Your task to perform on an android device: Open calendar and show me the second week of next month Image 0: 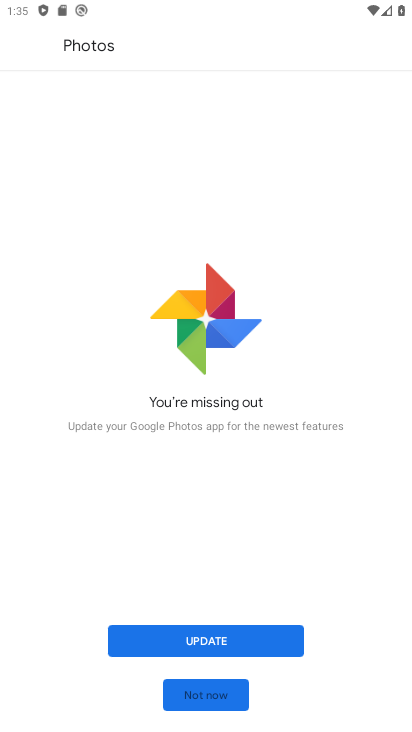
Step 0: press home button
Your task to perform on an android device: Open calendar and show me the second week of next month Image 1: 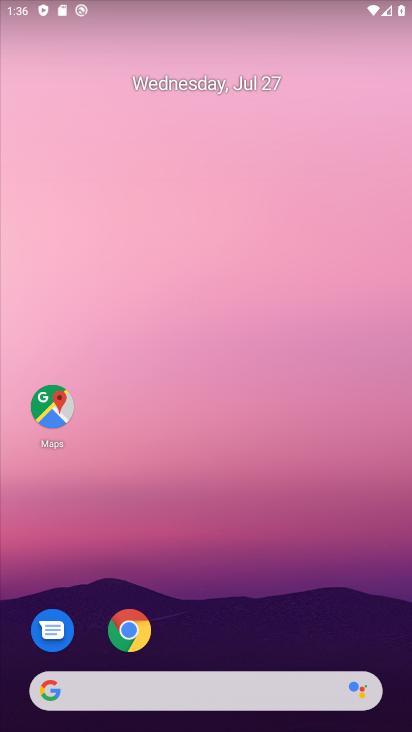
Step 1: drag from (358, 632) to (323, 0)
Your task to perform on an android device: Open calendar and show me the second week of next month Image 2: 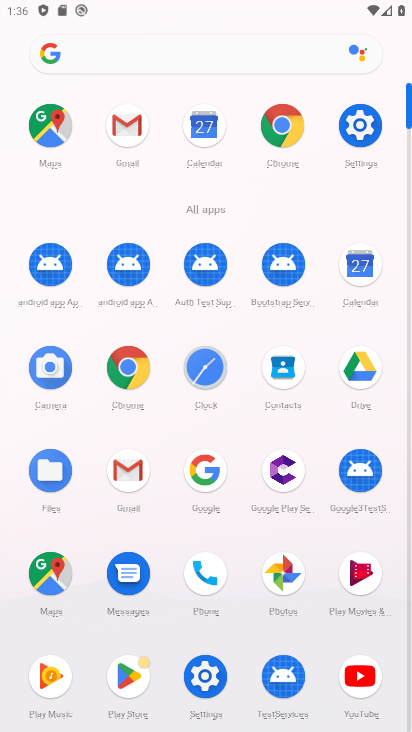
Step 2: click (362, 263)
Your task to perform on an android device: Open calendar and show me the second week of next month Image 3: 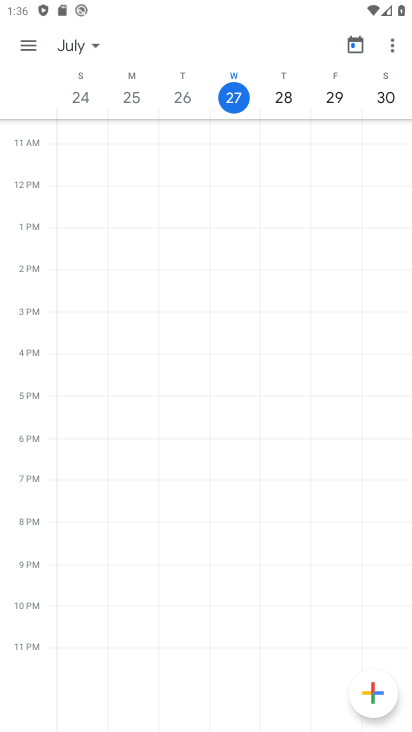
Step 3: click (91, 43)
Your task to perform on an android device: Open calendar and show me the second week of next month Image 4: 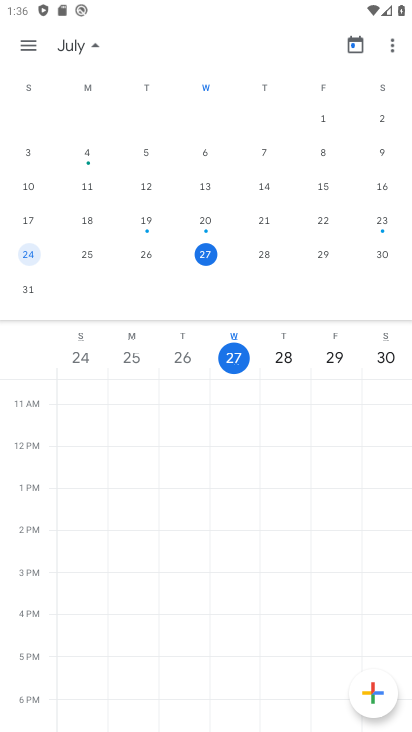
Step 4: drag from (380, 230) to (13, 238)
Your task to perform on an android device: Open calendar and show me the second week of next month Image 5: 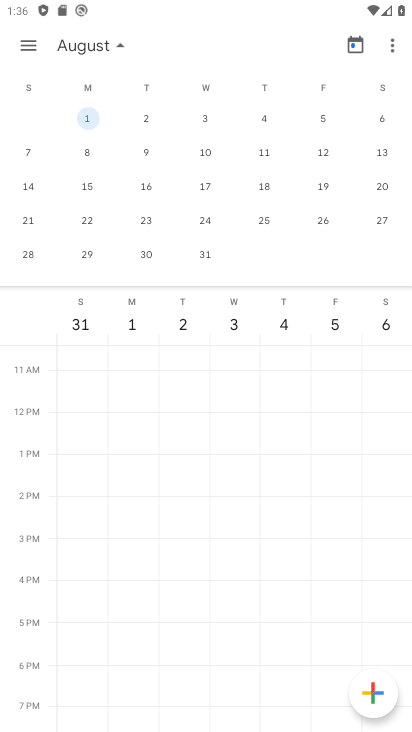
Step 5: click (30, 183)
Your task to perform on an android device: Open calendar and show me the second week of next month Image 6: 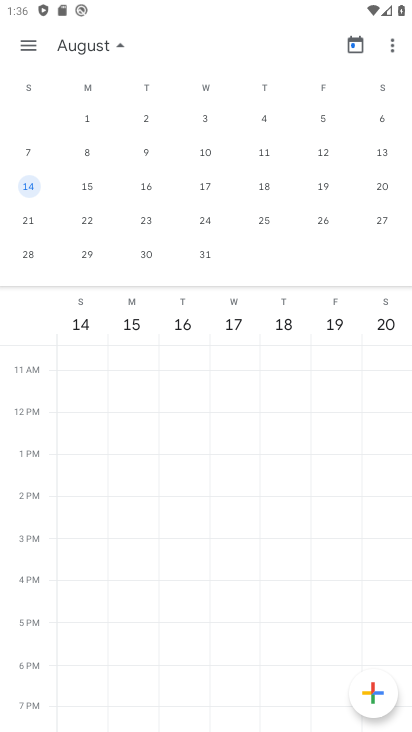
Step 6: task complete